Your task to perform on an android device: toggle improve location accuracy Image 0: 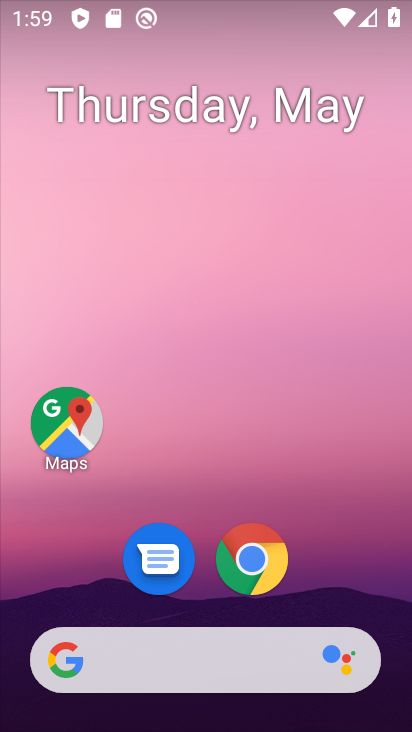
Step 0: drag from (202, 620) to (195, 233)
Your task to perform on an android device: toggle improve location accuracy Image 1: 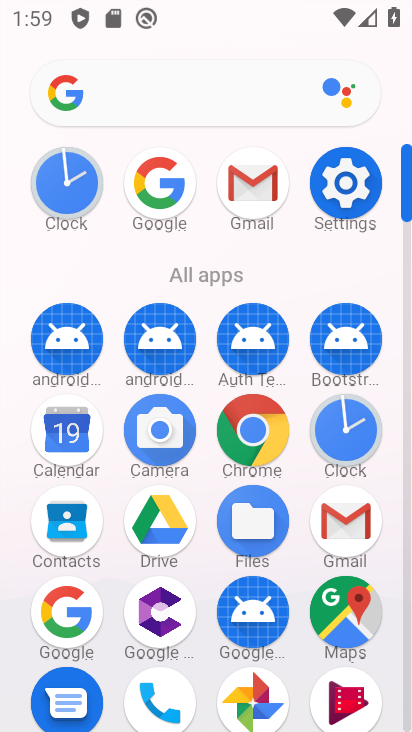
Step 1: click (338, 179)
Your task to perform on an android device: toggle improve location accuracy Image 2: 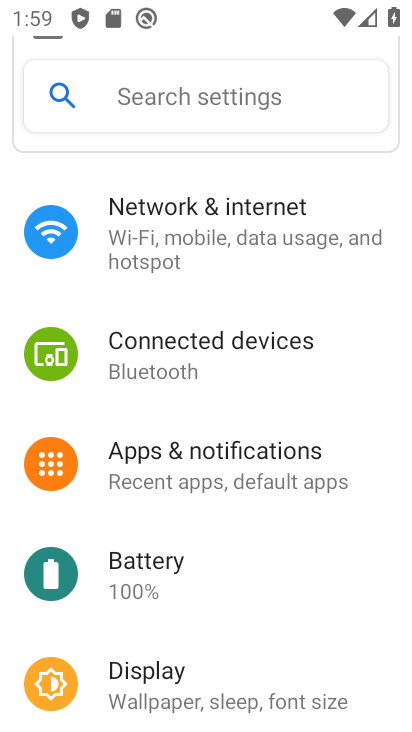
Step 2: drag from (137, 675) to (230, 357)
Your task to perform on an android device: toggle improve location accuracy Image 3: 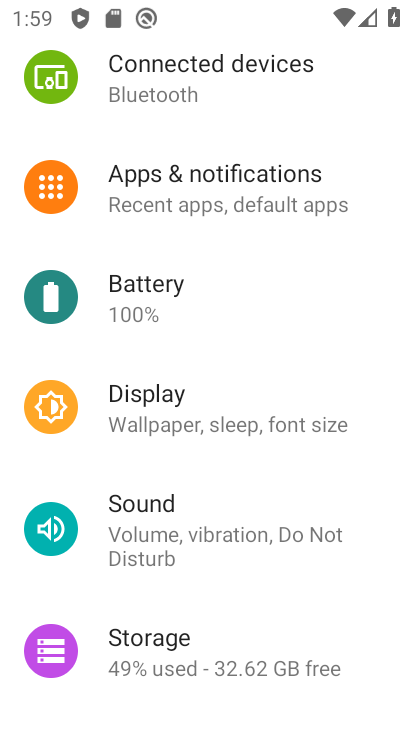
Step 3: drag from (233, 630) to (255, 391)
Your task to perform on an android device: toggle improve location accuracy Image 4: 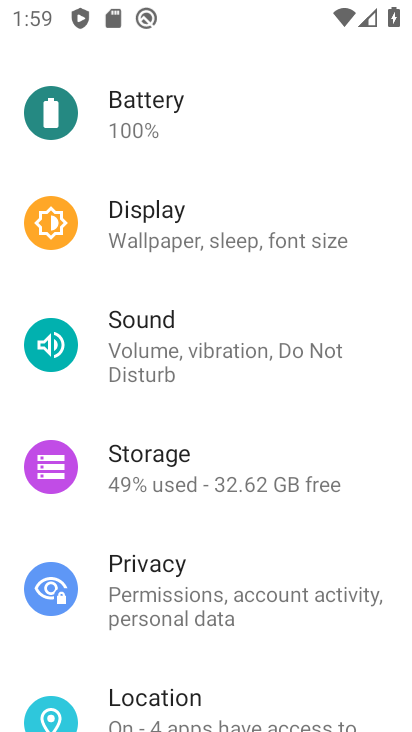
Step 4: click (173, 694)
Your task to perform on an android device: toggle improve location accuracy Image 5: 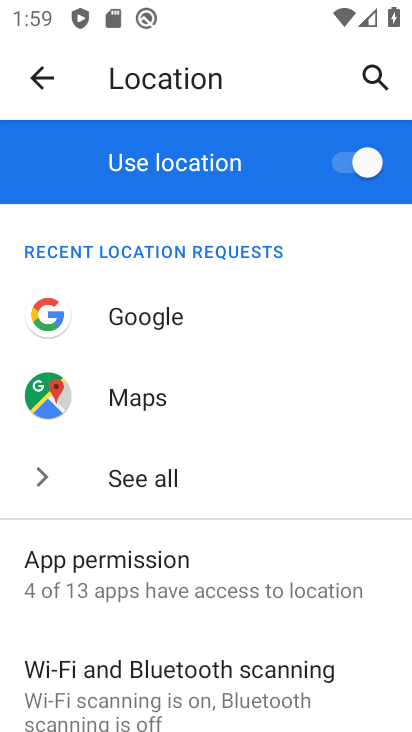
Step 5: drag from (210, 637) to (234, 321)
Your task to perform on an android device: toggle improve location accuracy Image 6: 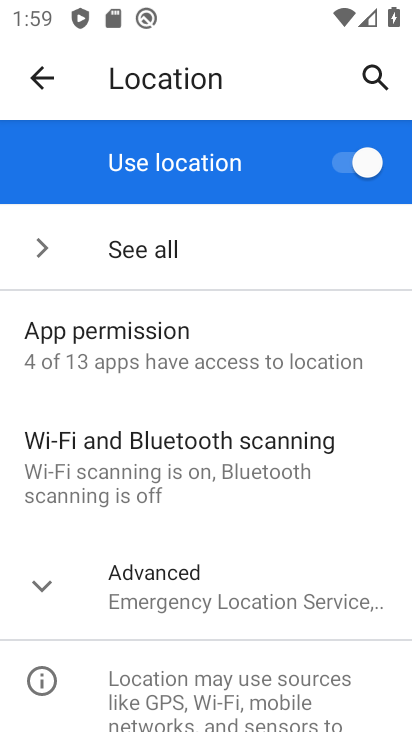
Step 6: click (221, 597)
Your task to perform on an android device: toggle improve location accuracy Image 7: 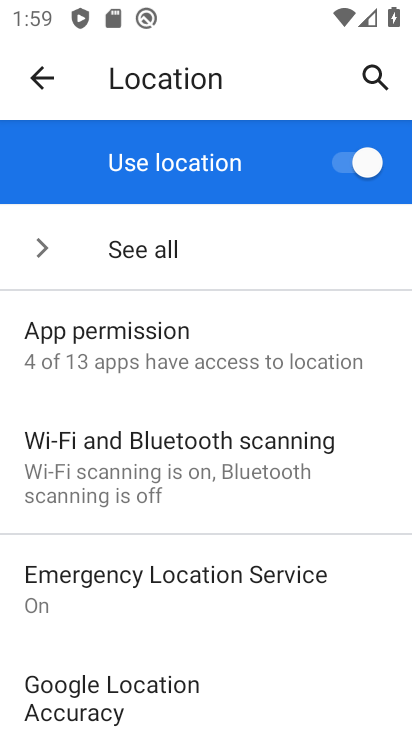
Step 7: drag from (259, 684) to (267, 495)
Your task to perform on an android device: toggle improve location accuracy Image 8: 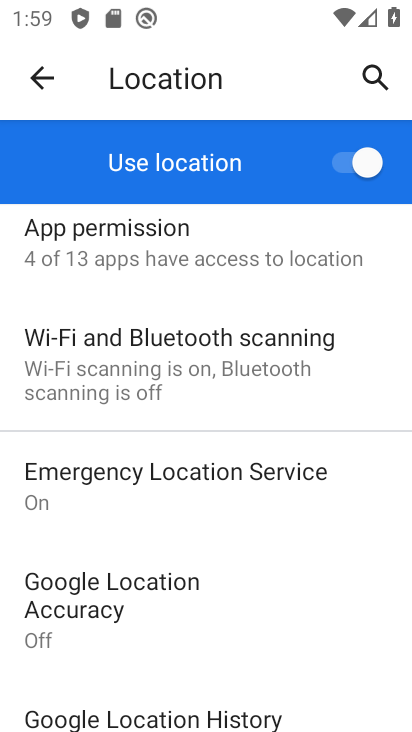
Step 8: click (167, 601)
Your task to perform on an android device: toggle improve location accuracy Image 9: 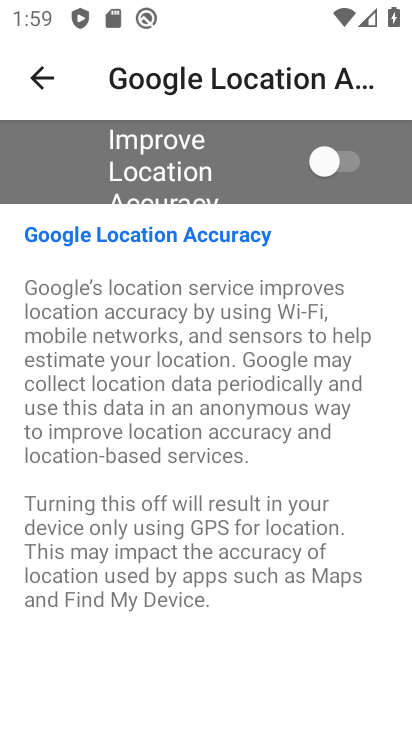
Step 9: click (344, 161)
Your task to perform on an android device: toggle improve location accuracy Image 10: 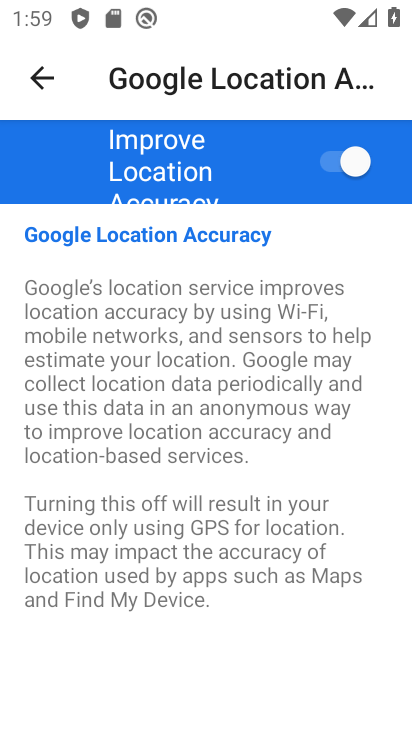
Step 10: task complete